Your task to perform on an android device: Go to accessibility settings Image 0: 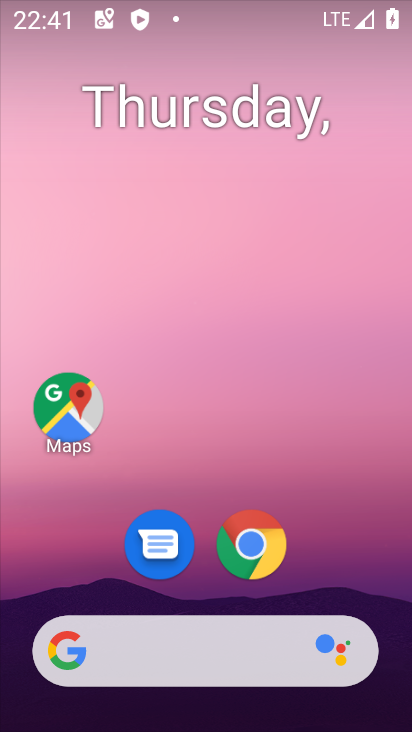
Step 0: drag from (346, 510) to (208, 122)
Your task to perform on an android device: Go to accessibility settings Image 1: 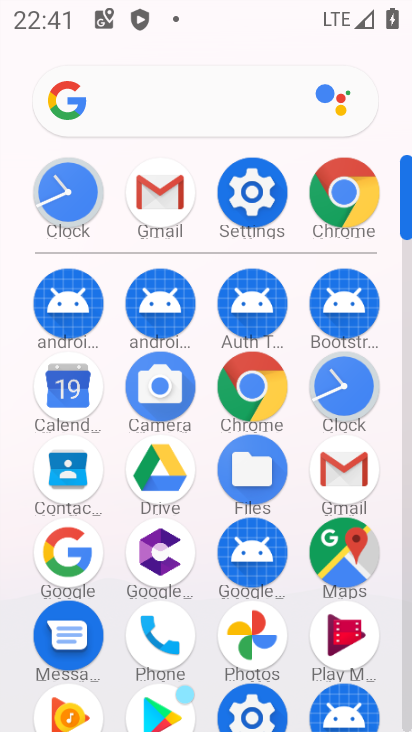
Step 1: click (253, 702)
Your task to perform on an android device: Go to accessibility settings Image 2: 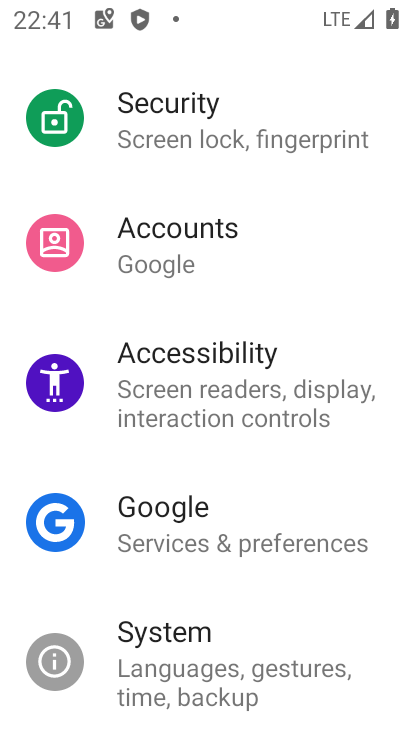
Step 2: click (185, 384)
Your task to perform on an android device: Go to accessibility settings Image 3: 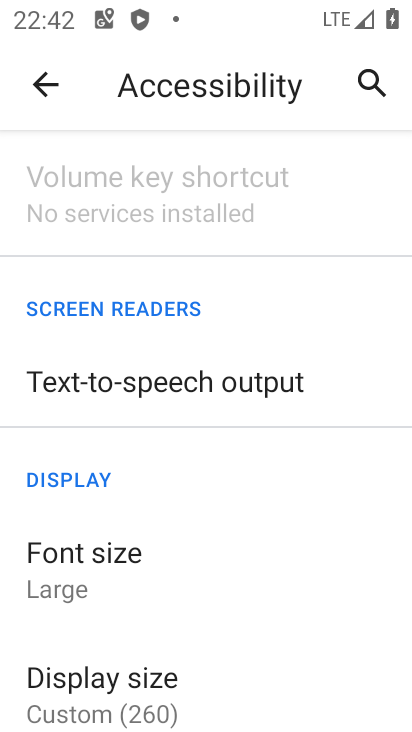
Step 3: task complete